Your task to perform on an android device: Open the calendar app, open the side menu, and click the "Day" option Image 0: 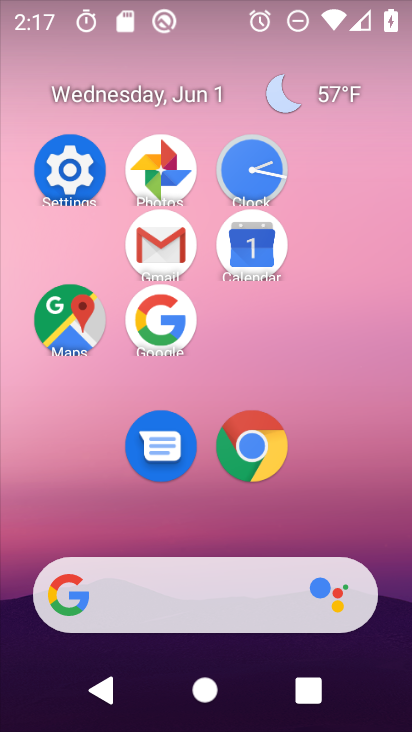
Step 0: click (248, 237)
Your task to perform on an android device: Open the calendar app, open the side menu, and click the "Day" option Image 1: 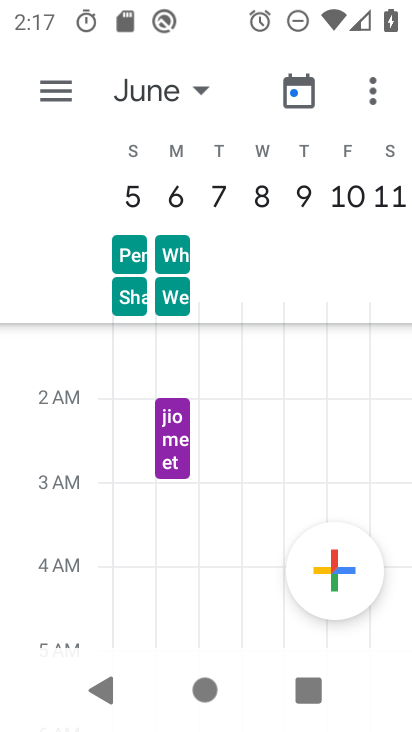
Step 1: click (66, 78)
Your task to perform on an android device: Open the calendar app, open the side menu, and click the "Day" option Image 2: 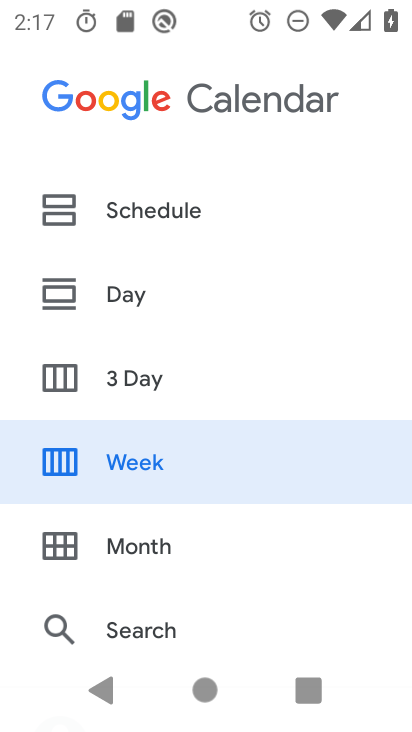
Step 2: click (136, 291)
Your task to perform on an android device: Open the calendar app, open the side menu, and click the "Day" option Image 3: 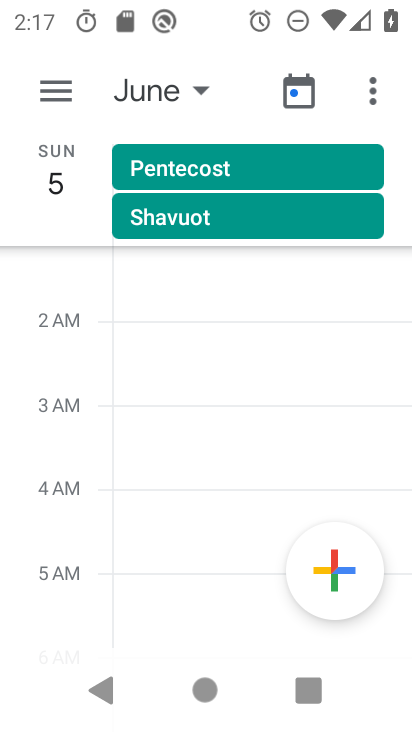
Step 3: task complete